Your task to perform on an android device: Check the weather Image 0: 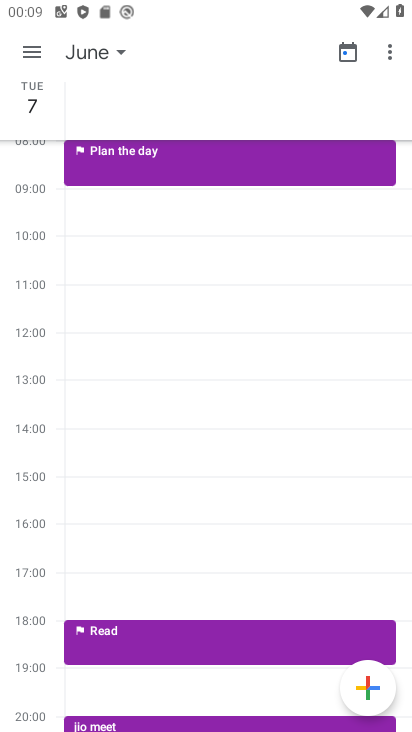
Step 0: press home button
Your task to perform on an android device: Check the weather Image 1: 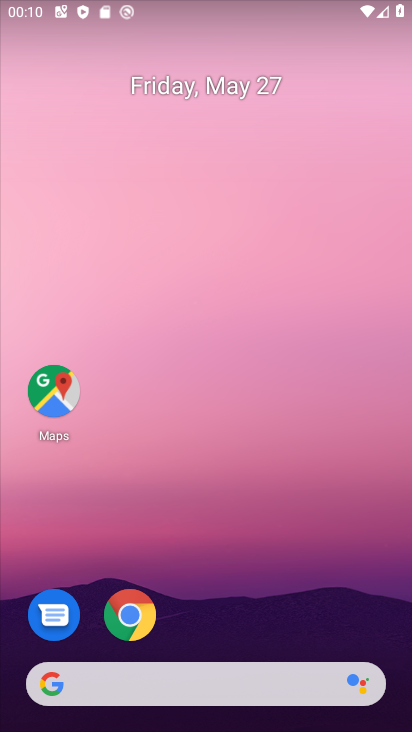
Step 1: click (281, 687)
Your task to perform on an android device: Check the weather Image 2: 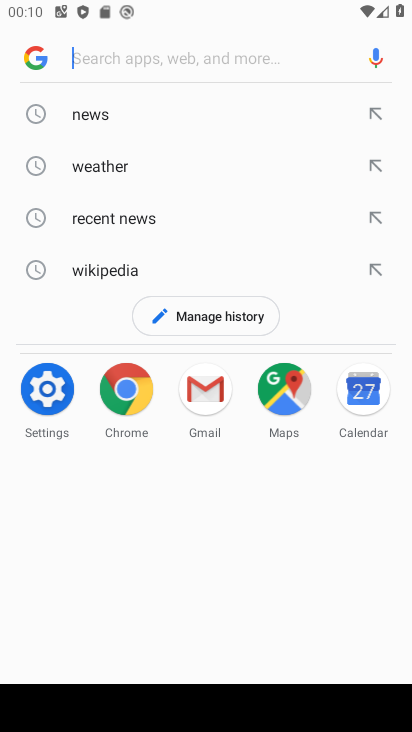
Step 2: click (126, 170)
Your task to perform on an android device: Check the weather Image 3: 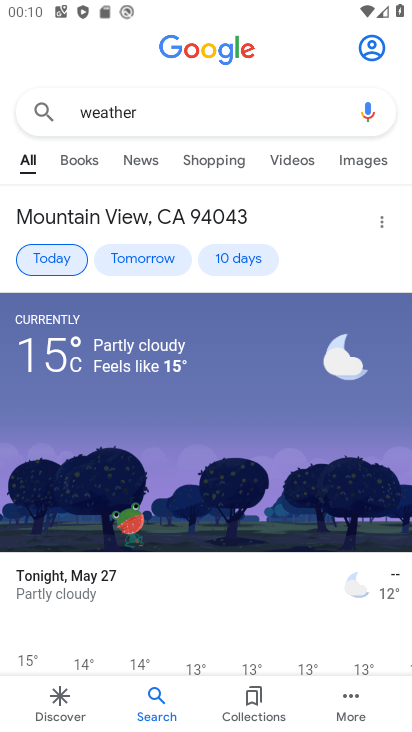
Step 3: task complete